Your task to perform on an android device: change timer sound Image 0: 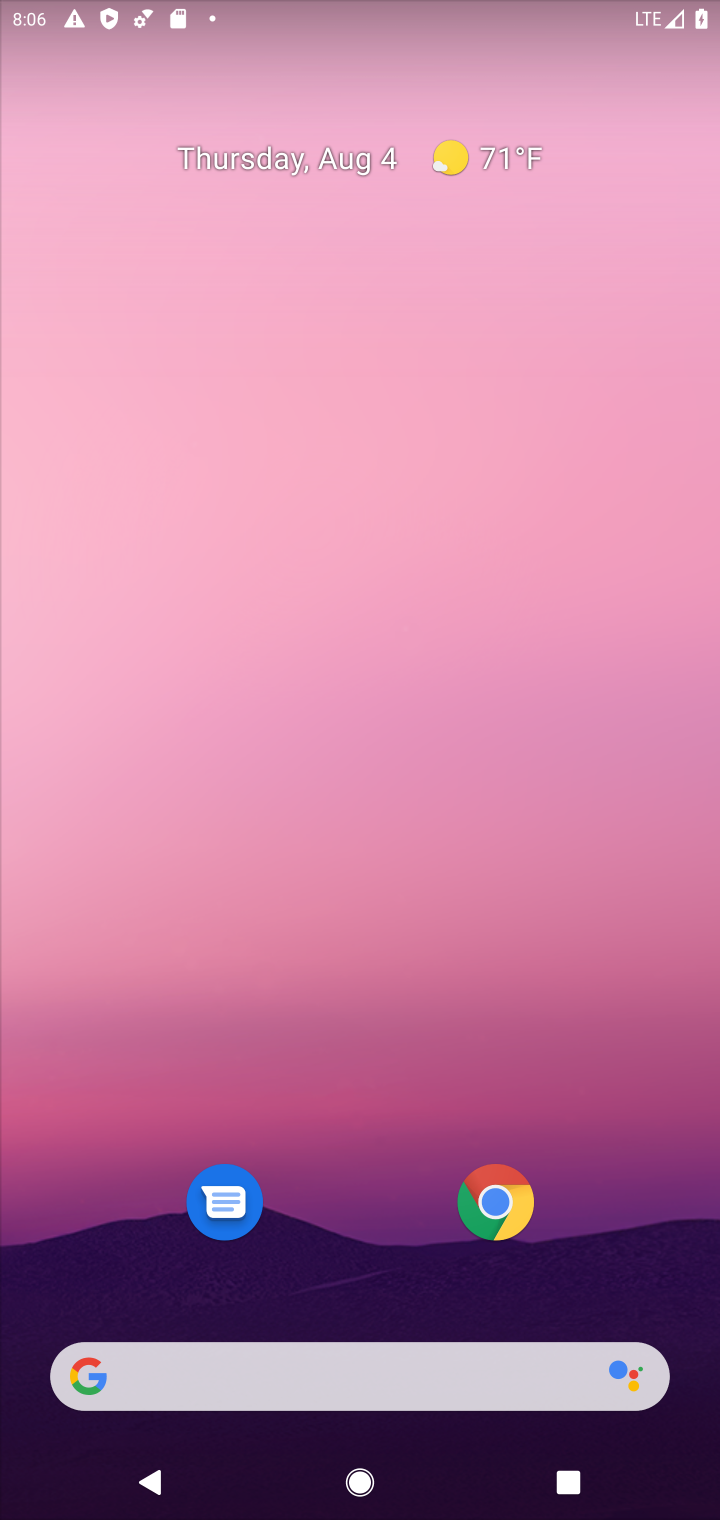
Step 0: drag from (379, 1155) to (365, 450)
Your task to perform on an android device: change timer sound Image 1: 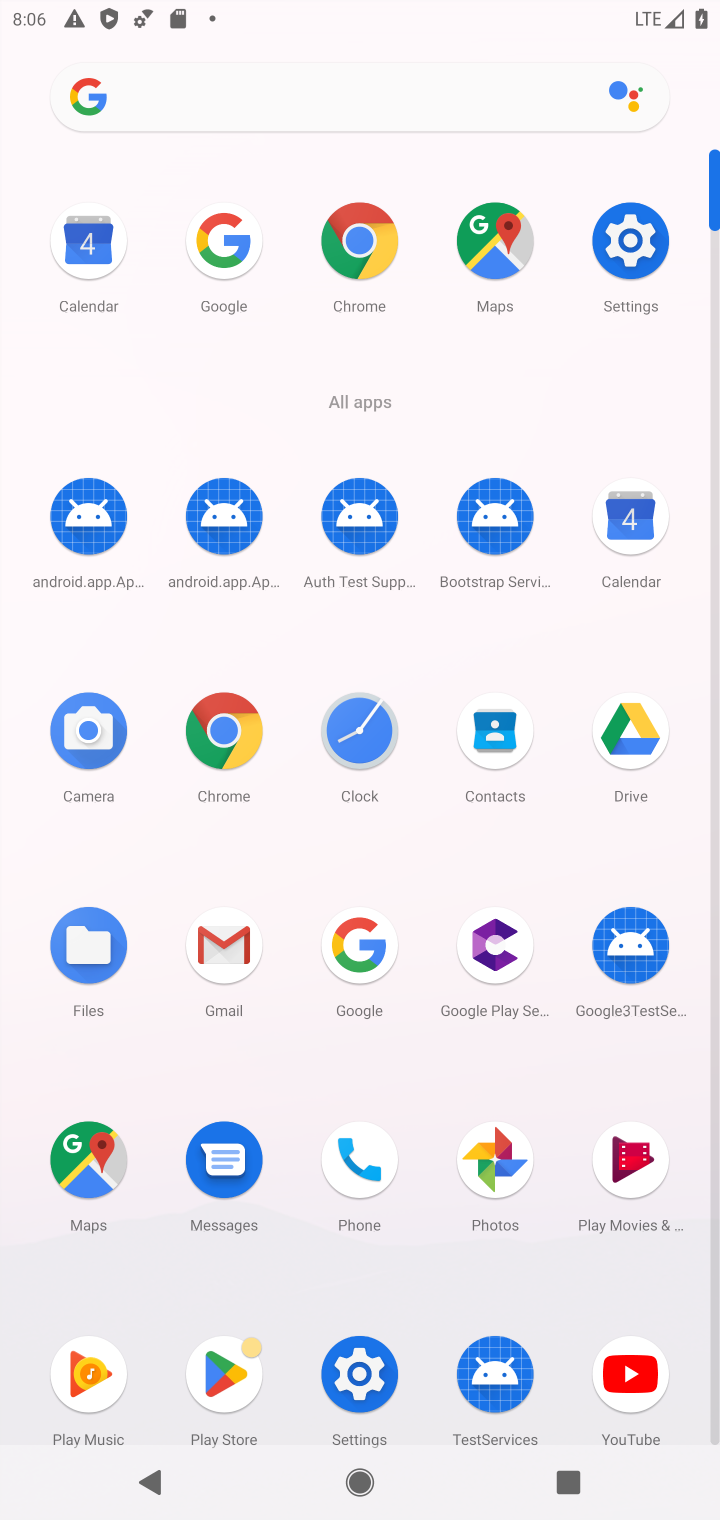
Step 1: click (364, 745)
Your task to perform on an android device: change timer sound Image 2: 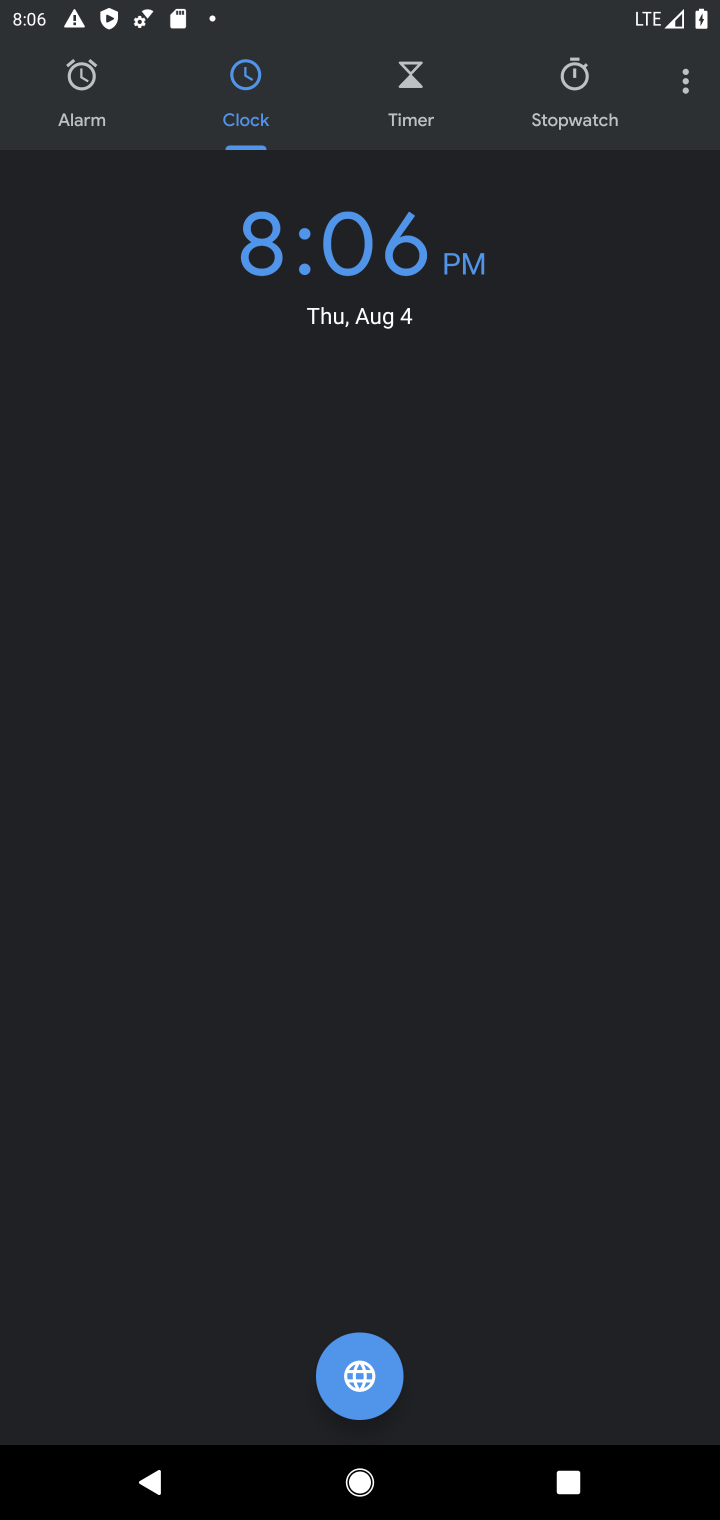
Step 2: click (683, 93)
Your task to perform on an android device: change timer sound Image 3: 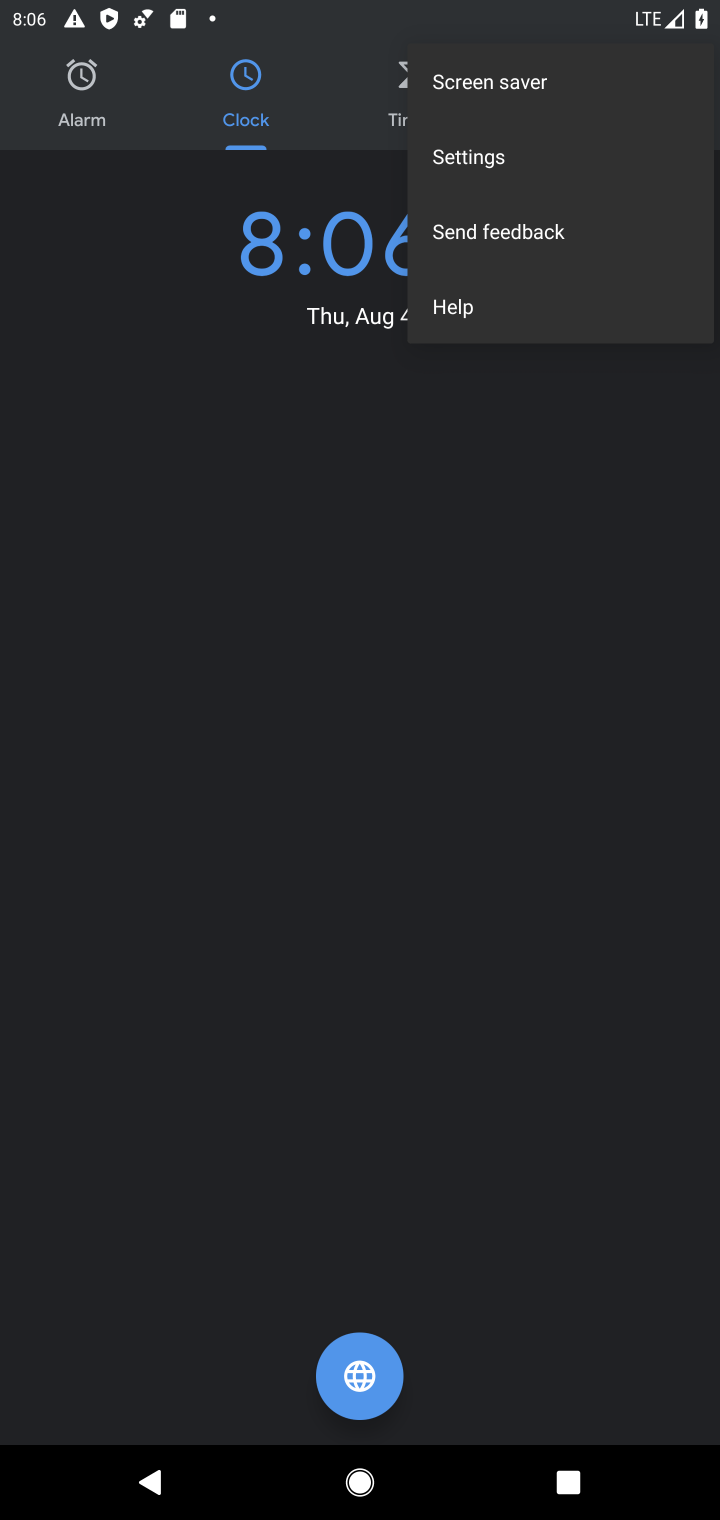
Step 3: click (516, 159)
Your task to perform on an android device: change timer sound Image 4: 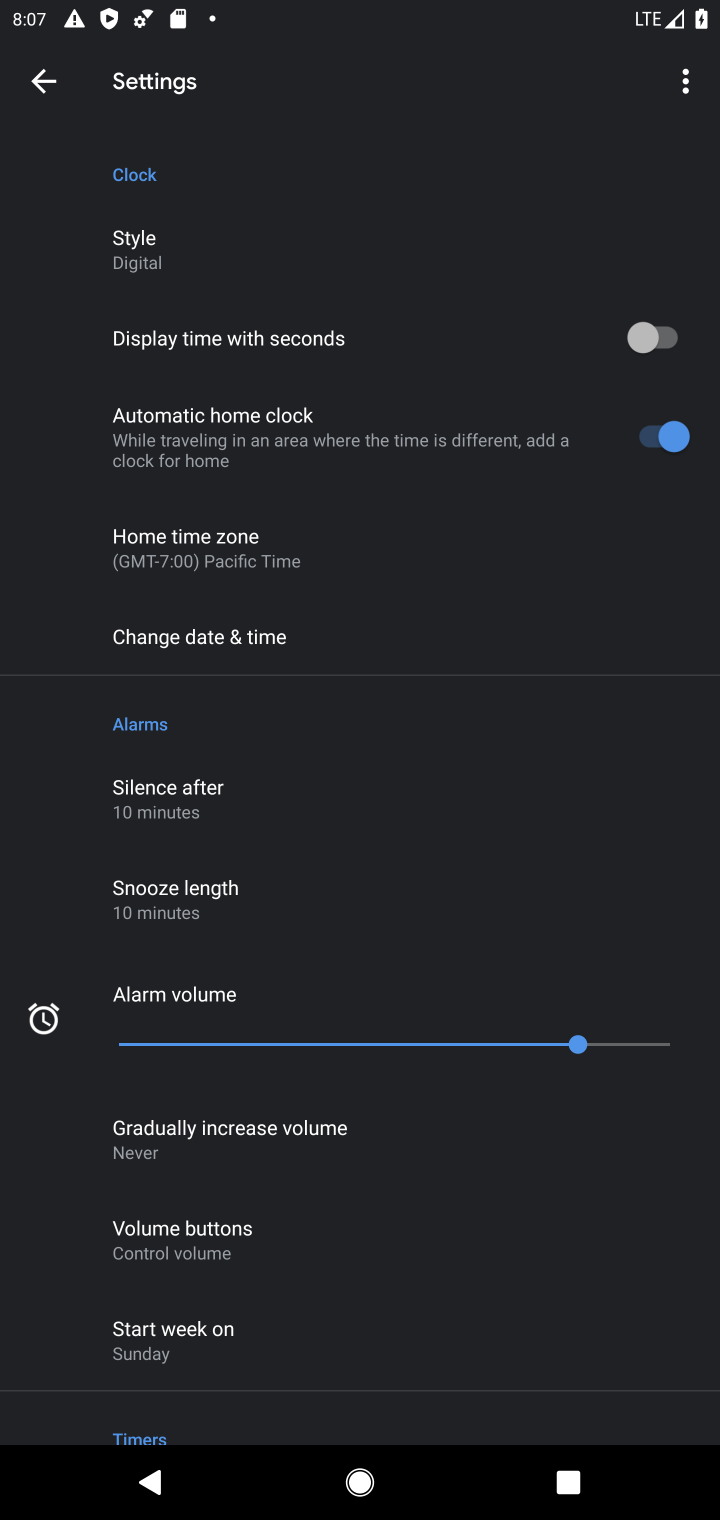
Step 4: drag from (334, 1261) to (412, 666)
Your task to perform on an android device: change timer sound Image 5: 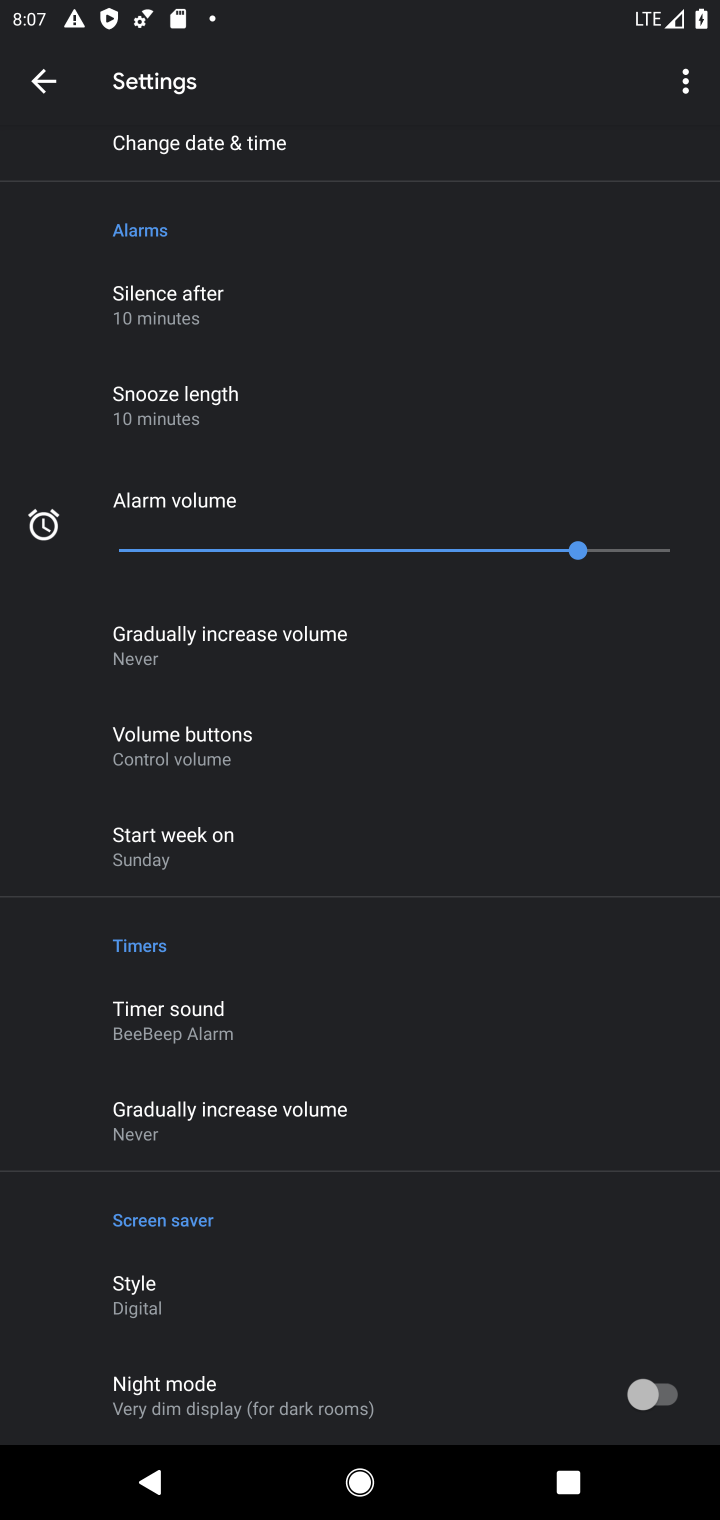
Step 5: click (261, 1030)
Your task to perform on an android device: change timer sound Image 6: 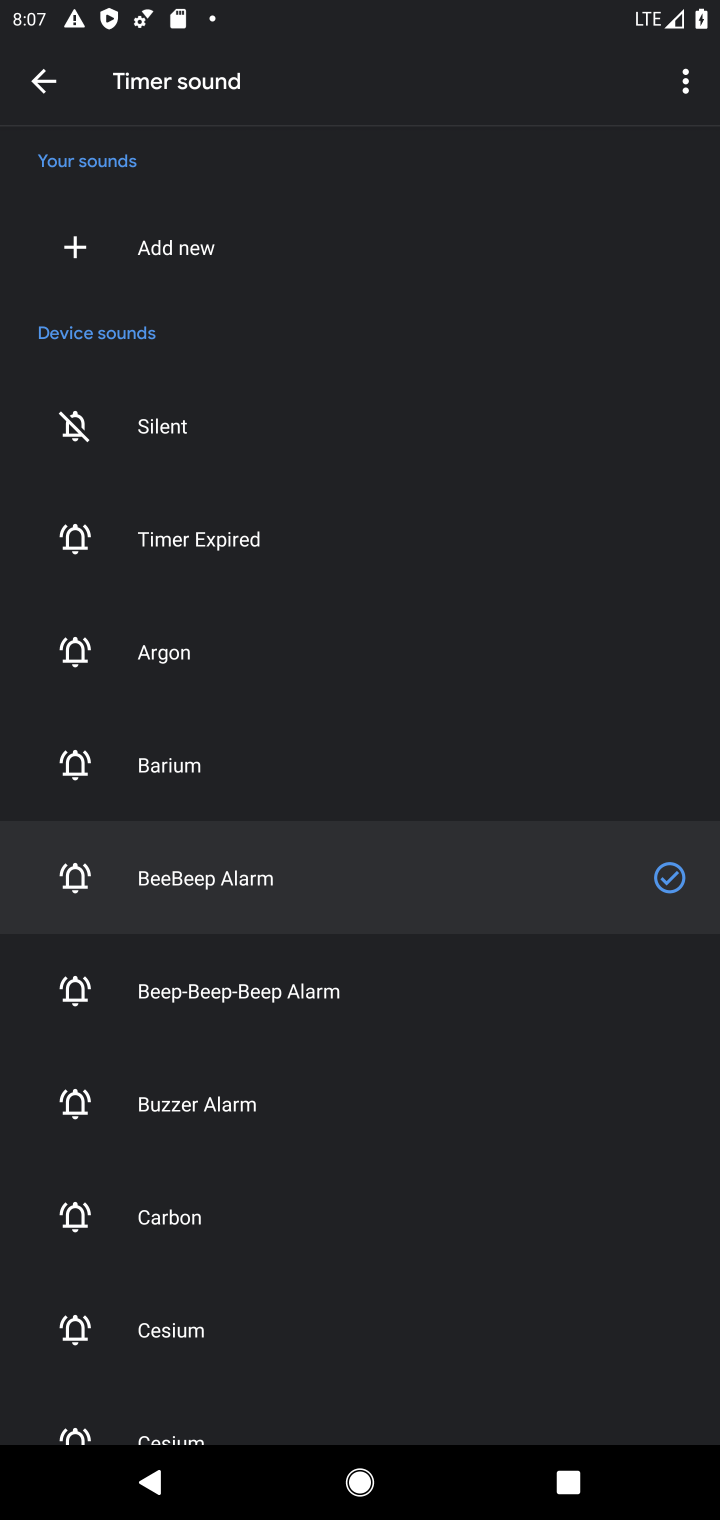
Step 6: click (268, 1086)
Your task to perform on an android device: change timer sound Image 7: 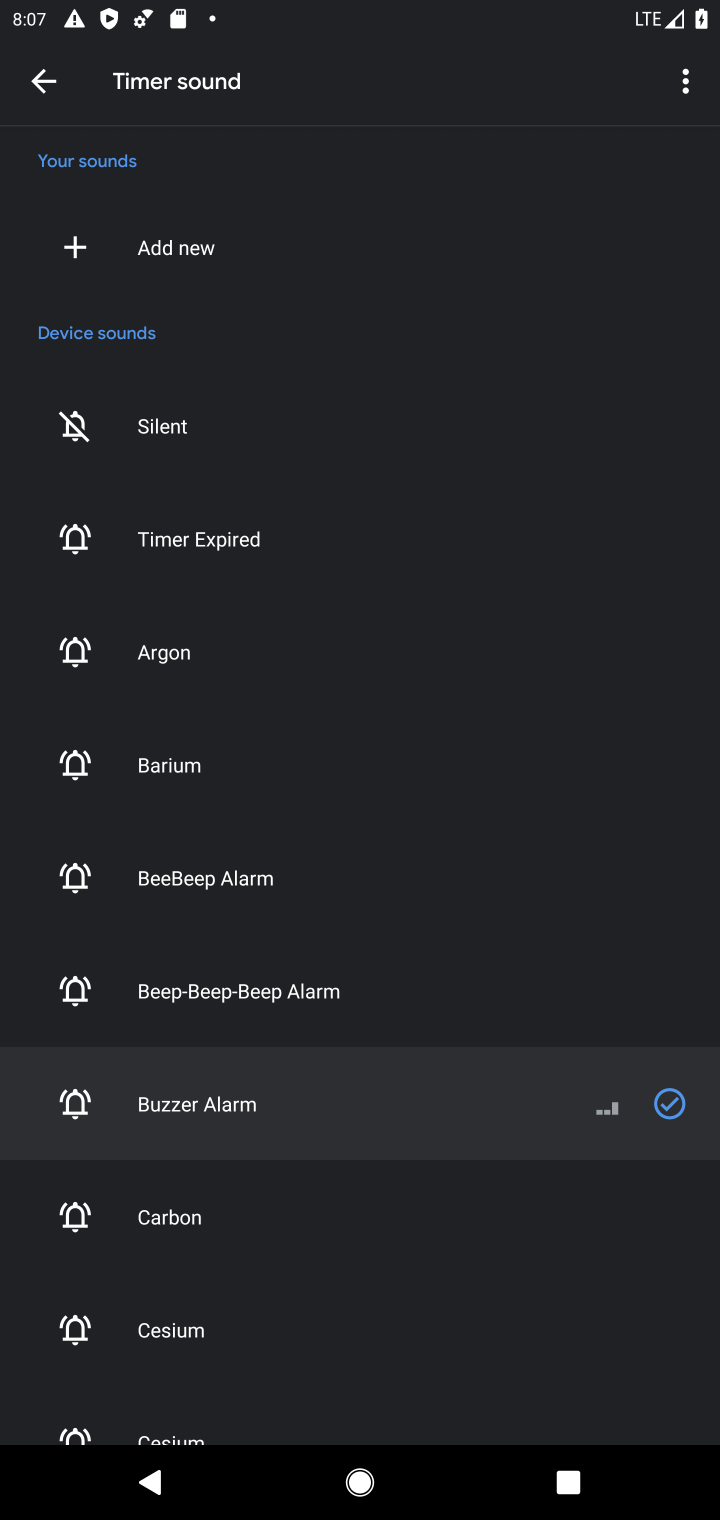
Step 7: task complete